Your task to perform on an android device: Open the web browser Image 0: 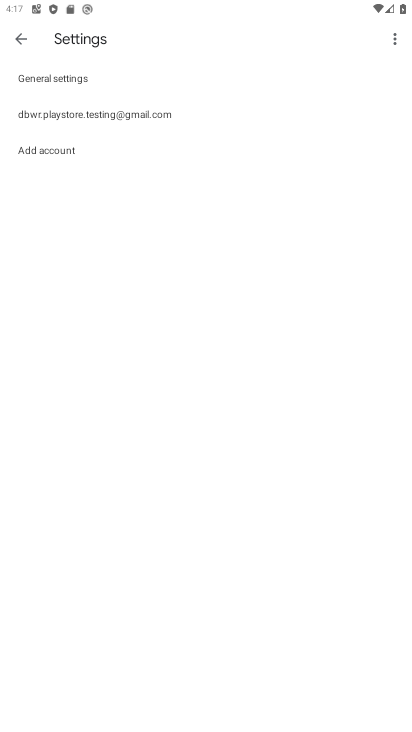
Step 0: press home button
Your task to perform on an android device: Open the web browser Image 1: 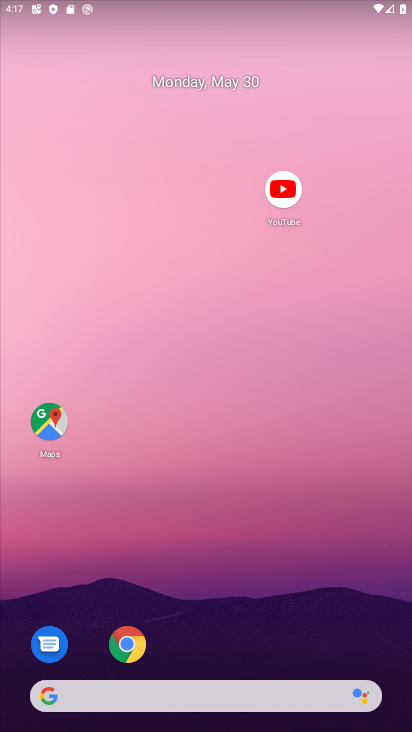
Step 1: click (119, 692)
Your task to perform on an android device: Open the web browser Image 2: 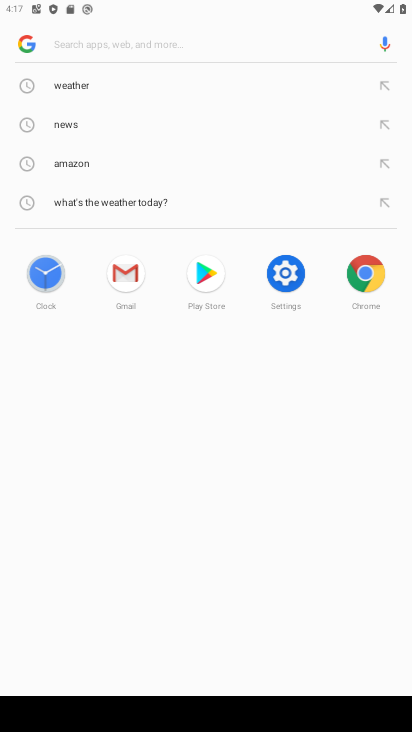
Step 2: task complete